Your task to perform on an android device: Do I have any events tomorrow? Image 0: 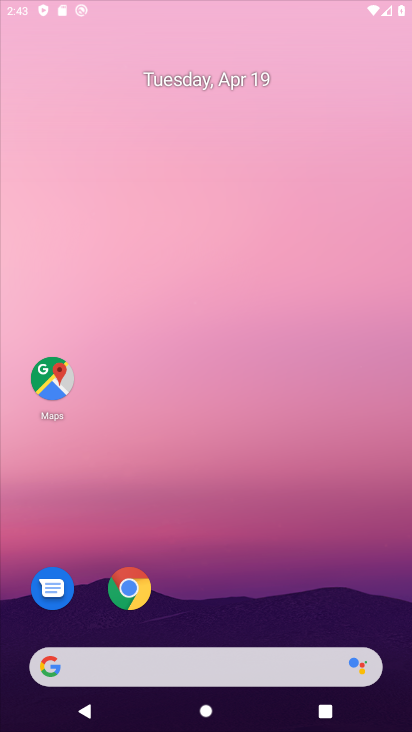
Step 0: drag from (284, 184) to (332, 156)
Your task to perform on an android device: Do I have any events tomorrow? Image 1: 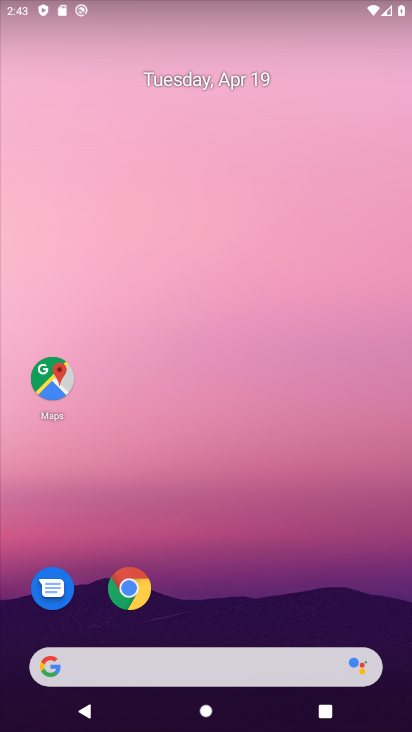
Step 1: drag from (259, 597) to (204, 15)
Your task to perform on an android device: Do I have any events tomorrow? Image 2: 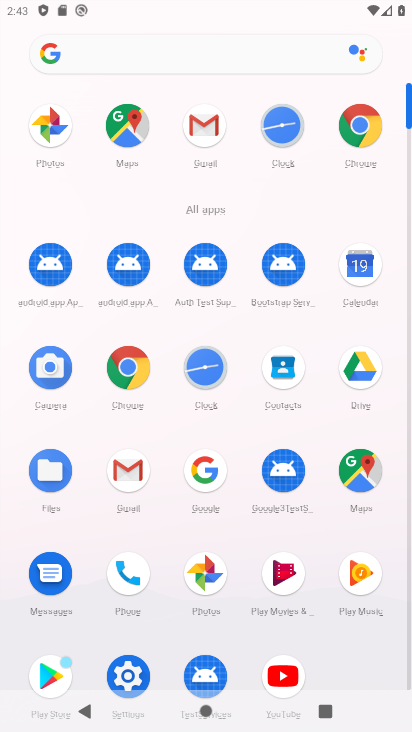
Step 2: click (128, 665)
Your task to perform on an android device: Do I have any events tomorrow? Image 3: 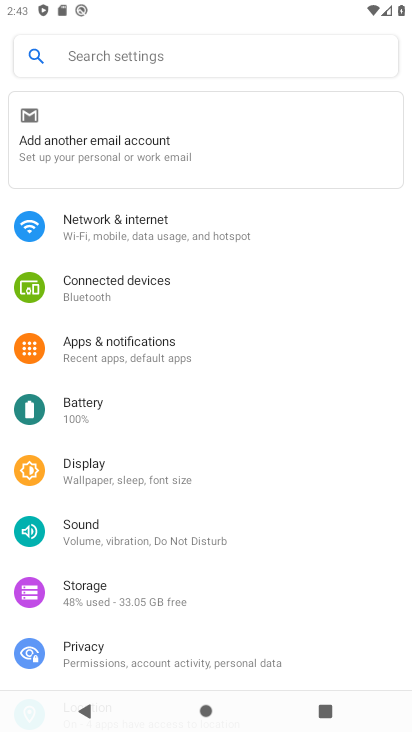
Step 3: press home button
Your task to perform on an android device: Do I have any events tomorrow? Image 4: 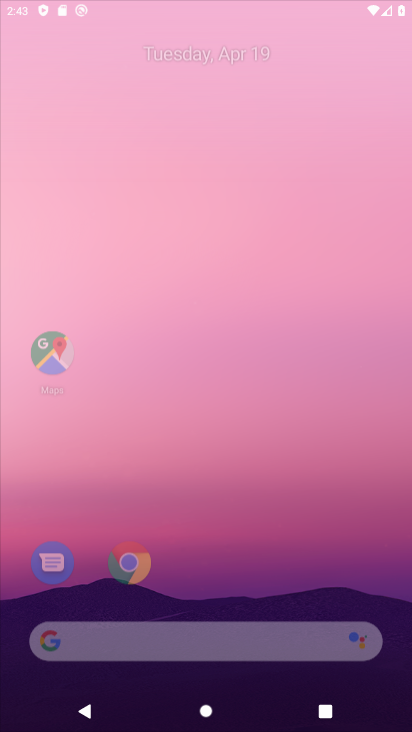
Step 4: drag from (126, 557) to (273, 246)
Your task to perform on an android device: Do I have any events tomorrow? Image 5: 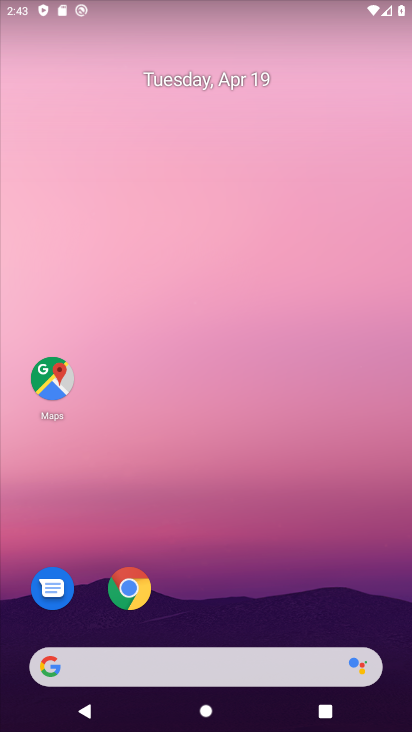
Step 5: drag from (179, 537) to (125, 3)
Your task to perform on an android device: Do I have any events tomorrow? Image 6: 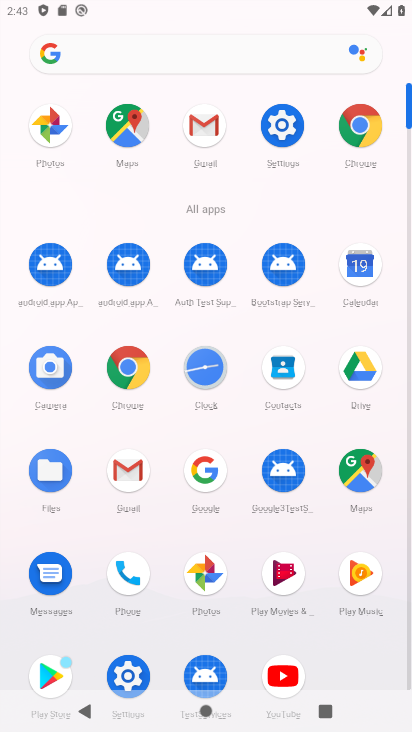
Step 6: click (358, 244)
Your task to perform on an android device: Do I have any events tomorrow? Image 7: 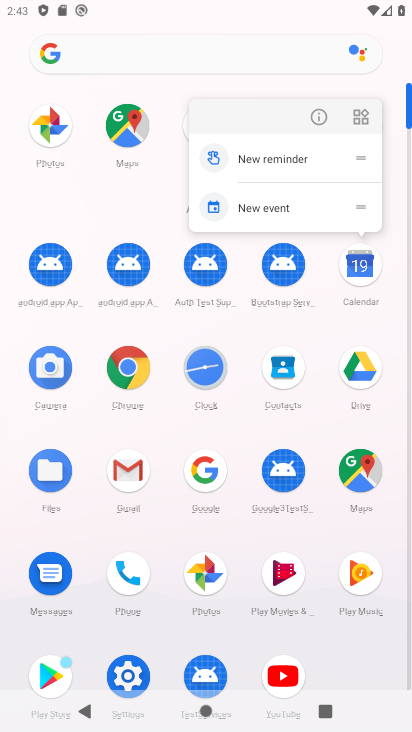
Step 7: click (326, 106)
Your task to perform on an android device: Do I have any events tomorrow? Image 8: 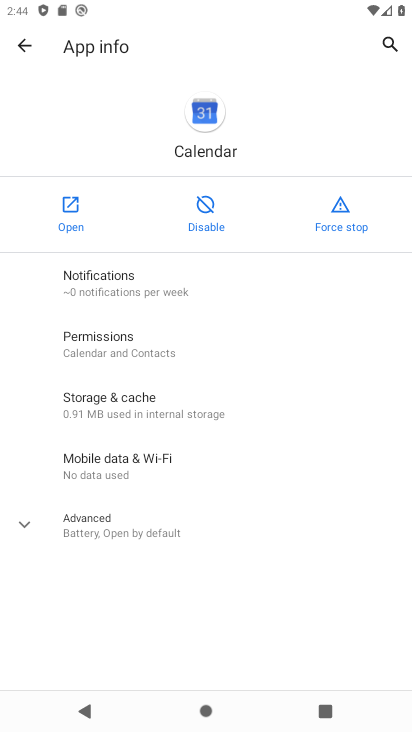
Step 8: click (65, 207)
Your task to perform on an android device: Do I have any events tomorrow? Image 9: 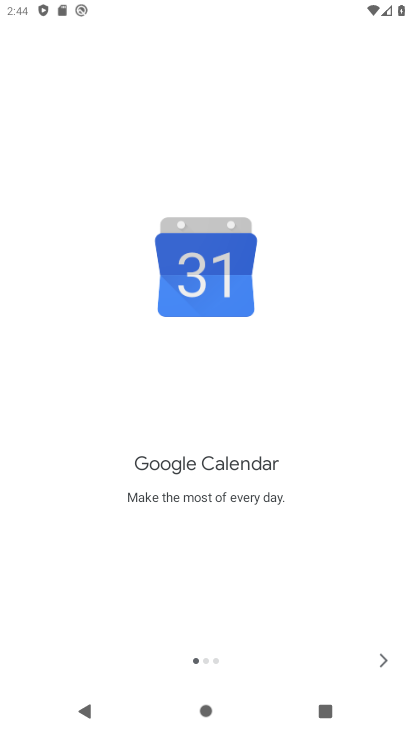
Step 9: click (372, 660)
Your task to perform on an android device: Do I have any events tomorrow? Image 10: 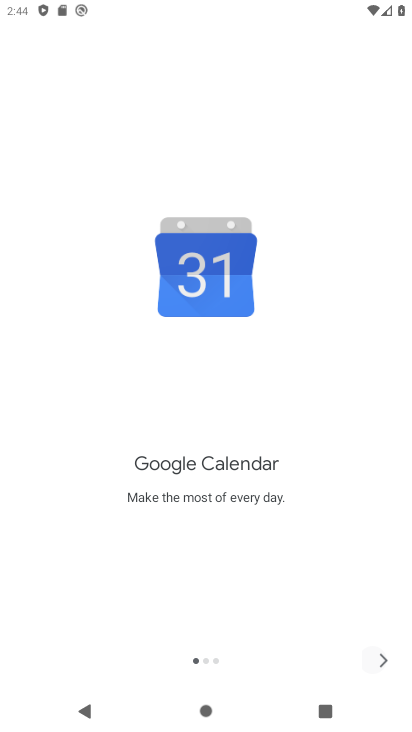
Step 10: click (373, 659)
Your task to perform on an android device: Do I have any events tomorrow? Image 11: 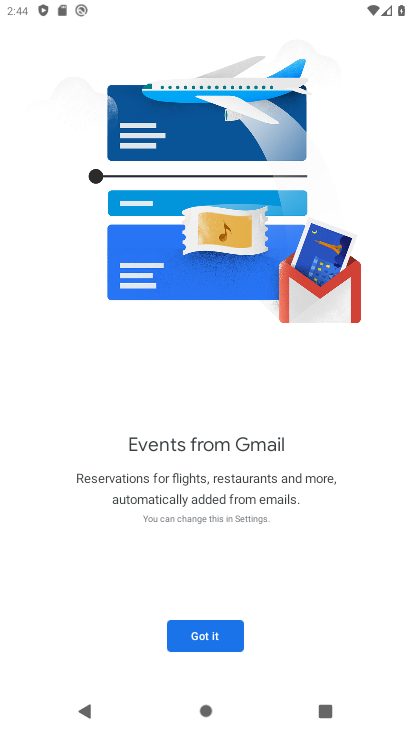
Step 11: click (207, 640)
Your task to perform on an android device: Do I have any events tomorrow? Image 12: 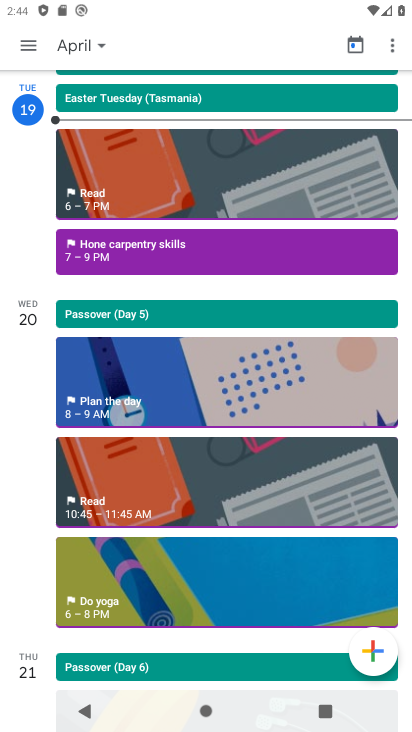
Step 12: click (88, 46)
Your task to perform on an android device: Do I have any events tomorrow? Image 13: 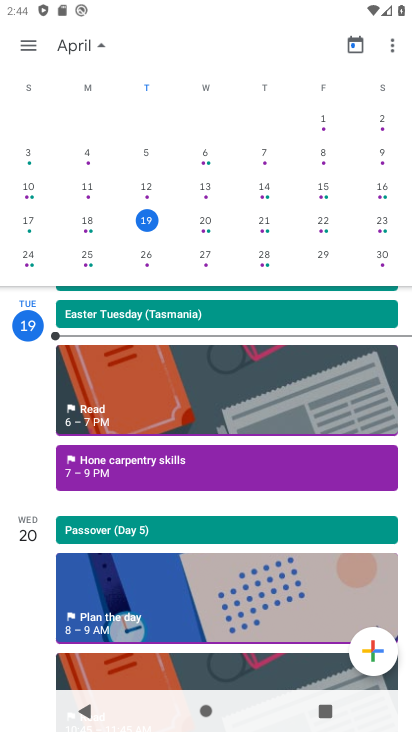
Step 13: click (197, 230)
Your task to perform on an android device: Do I have any events tomorrow? Image 14: 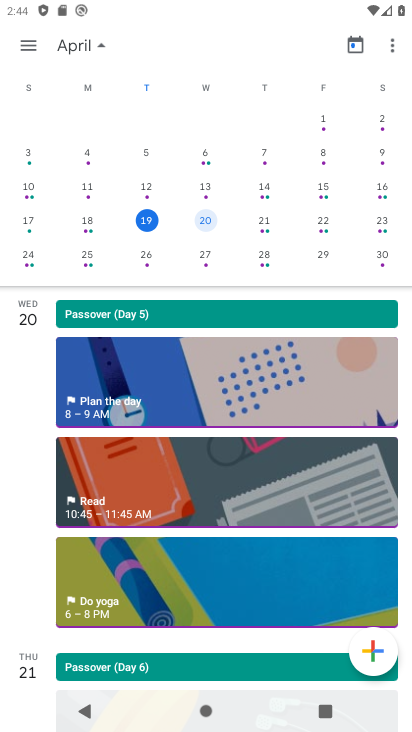
Step 14: task complete